Your task to perform on an android device: check google app version Image 0: 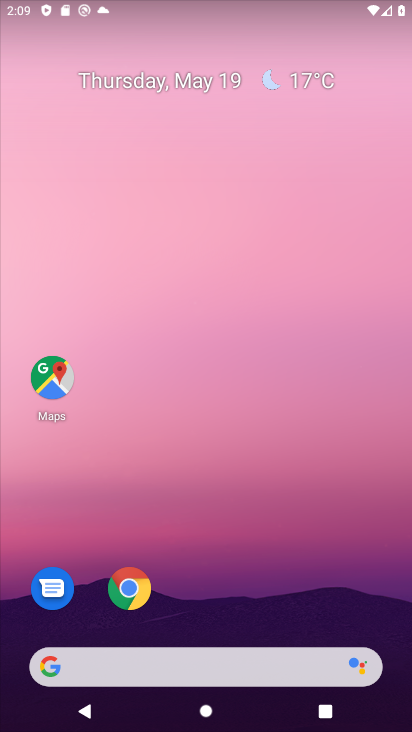
Step 0: drag from (215, 589) to (221, 136)
Your task to perform on an android device: check google app version Image 1: 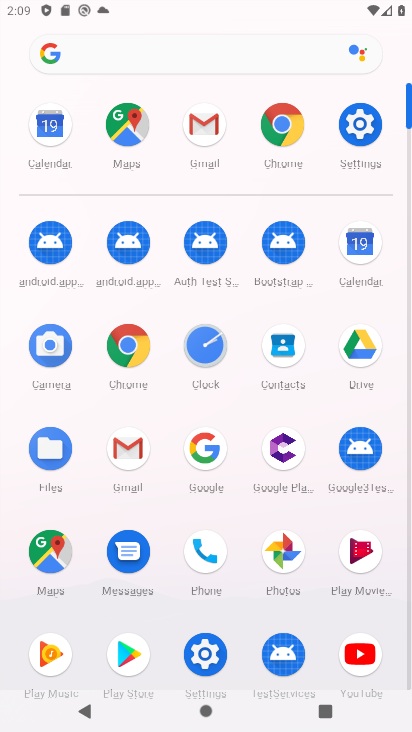
Step 1: click (208, 446)
Your task to perform on an android device: check google app version Image 2: 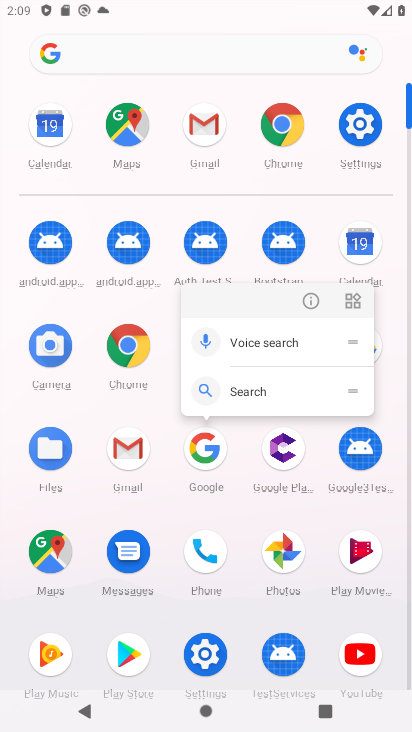
Step 2: click (306, 291)
Your task to perform on an android device: check google app version Image 3: 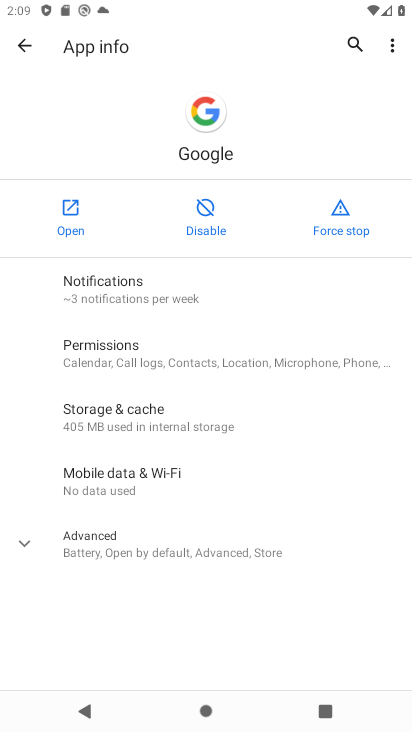
Step 3: click (172, 560)
Your task to perform on an android device: check google app version Image 4: 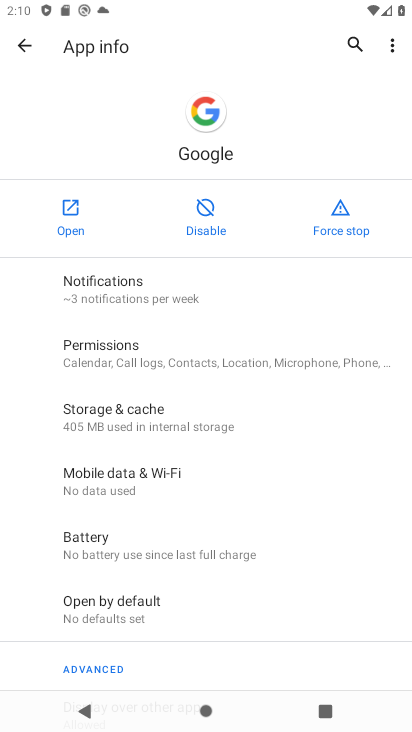
Step 4: task complete